Your task to perform on an android device: turn on data saver in the chrome app Image 0: 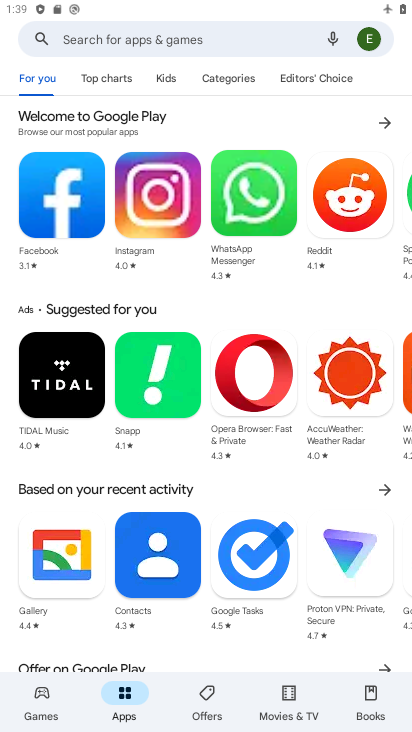
Step 0: task complete